Your task to perform on an android device: Open Chrome and go to settings Image 0: 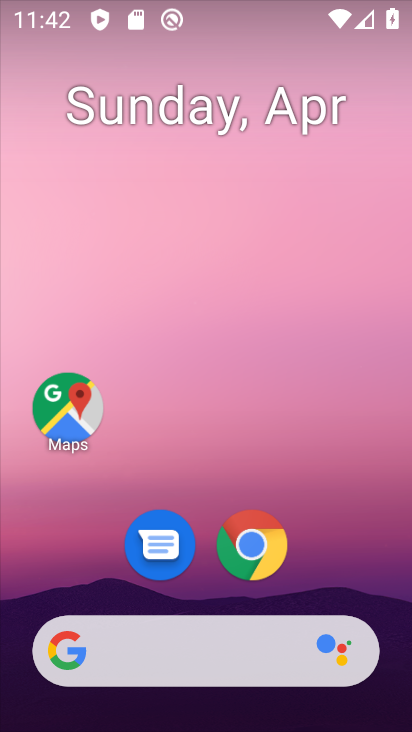
Step 0: drag from (243, 68) to (410, 230)
Your task to perform on an android device: Open Chrome and go to settings Image 1: 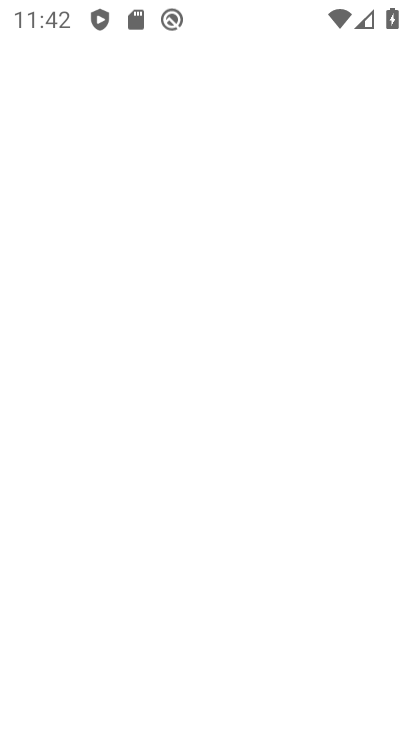
Step 1: press home button
Your task to perform on an android device: Open Chrome and go to settings Image 2: 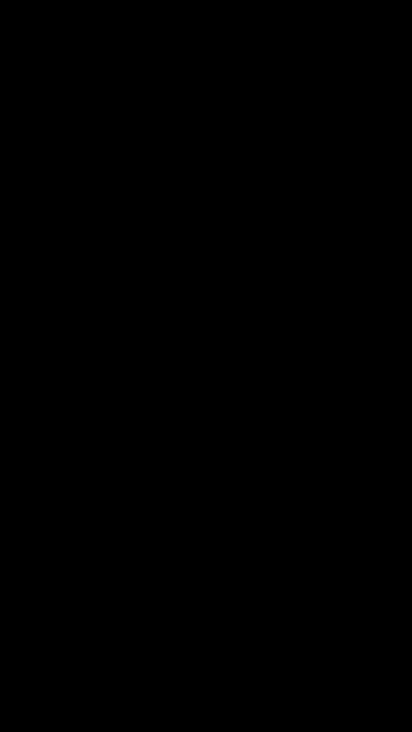
Step 2: drag from (410, 230) to (372, 457)
Your task to perform on an android device: Open Chrome and go to settings Image 3: 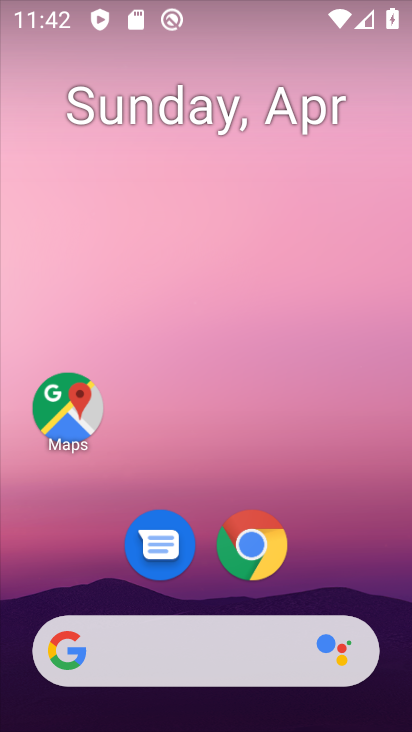
Step 3: click (254, 553)
Your task to perform on an android device: Open Chrome and go to settings Image 4: 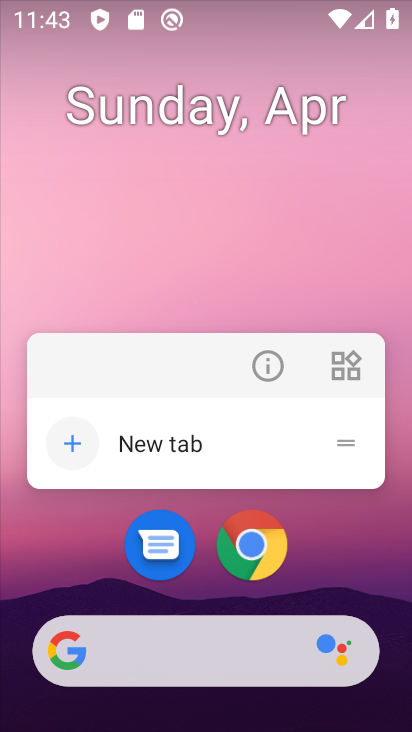
Step 4: click (269, 544)
Your task to perform on an android device: Open Chrome and go to settings Image 5: 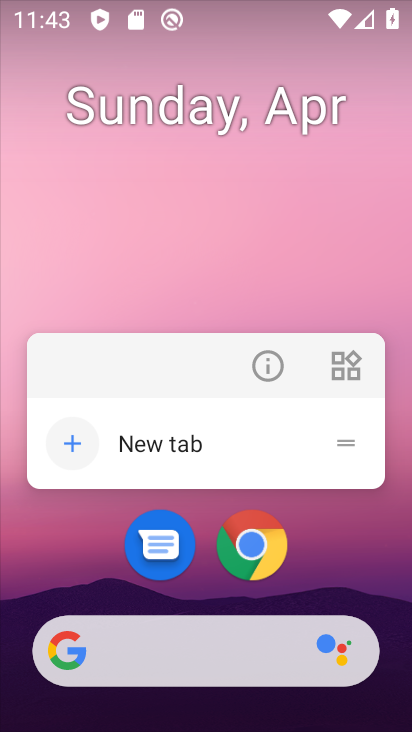
Step 5: click (270, 545)
Your task to perform on an android device: Open Chrome and go to settings Image 6: 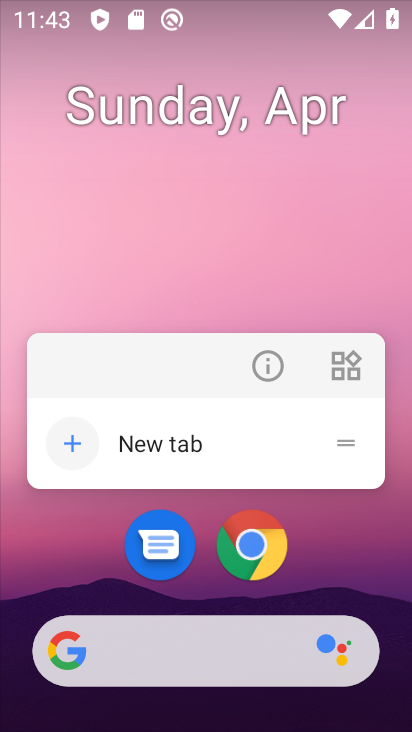
Step 6: click (262, 561)
Your task to perform on an android device: Open Chrome and go to settings Image 7: 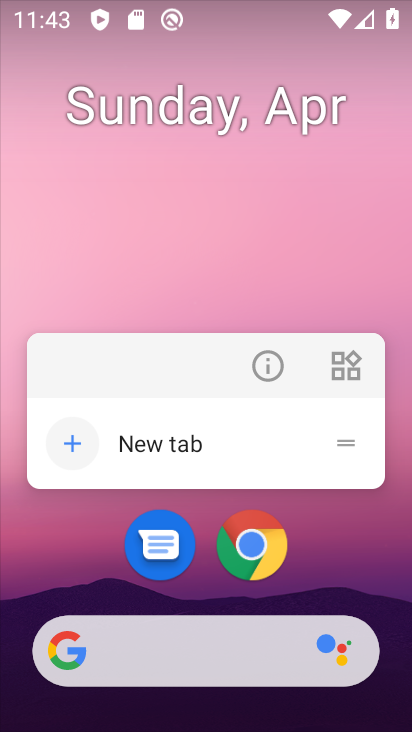
Step 7: click (261, 556)
Your task to perform on an android device: Open Chrome and go to settings Image 8: 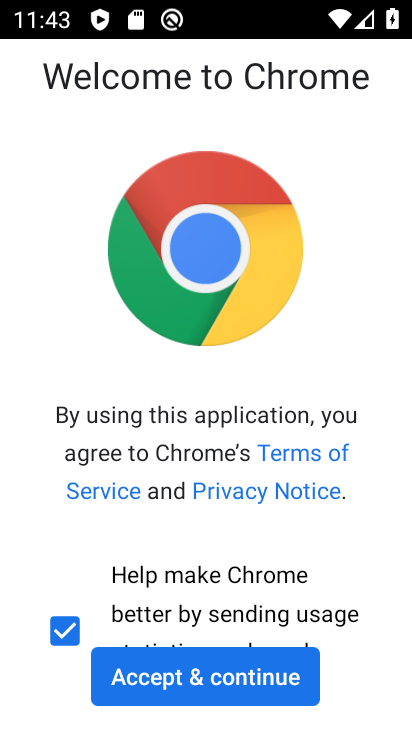
Step 8: click (229, 659)
Your task to perform on an android device: Open Chrome and go to settings Image 9: 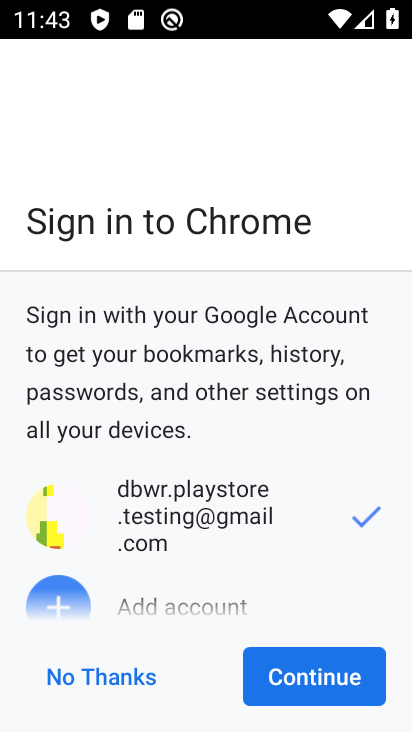
Step 9: click (313, 682)
Your task to perform on an android device: Open Chrome and go to settings Image 10: 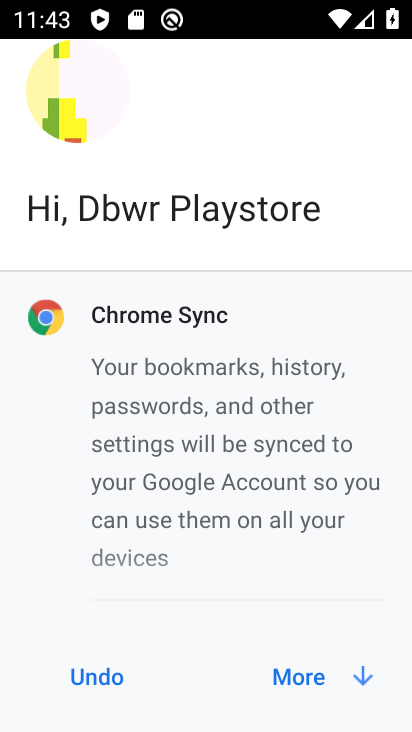
Step 10: click (313, 682)
Your task to perform on an android device: Open Chrome and go to settings Image 11: 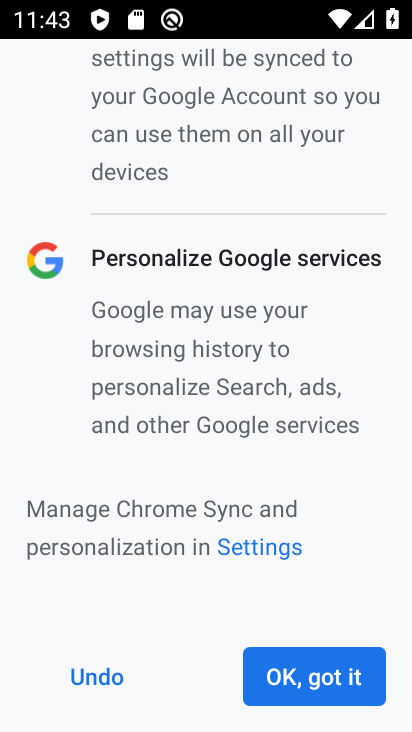
Step 11: click (319, 686)
Your task to perform on an android device: Open Chrome and go to settings Image 12: 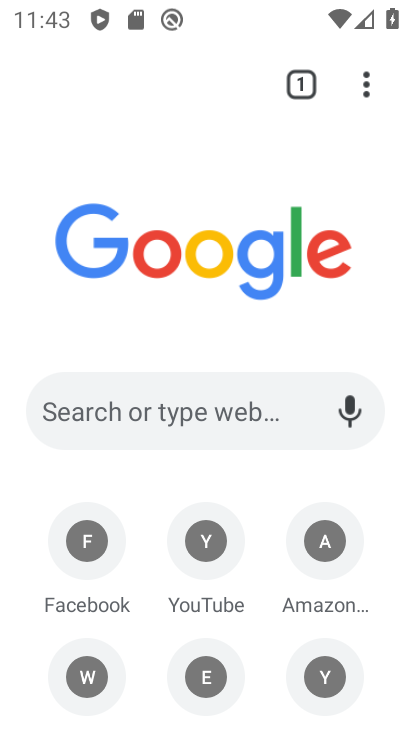
Step 12: task complete